Your task to perform on an android device: uninstall "Etsy: Buy & Sell Unique Items" Image 0: 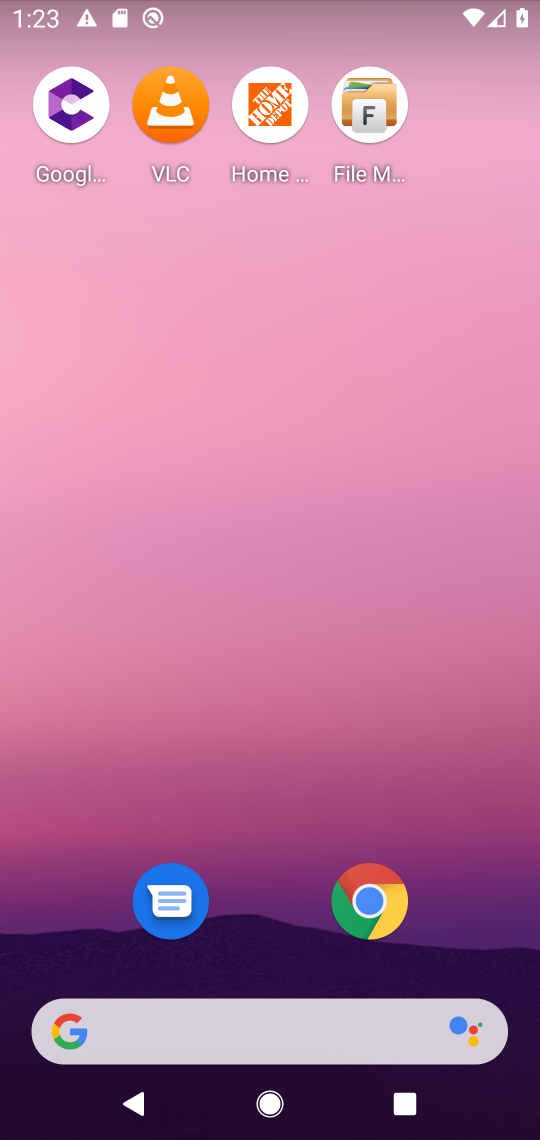
Step 0: drag from (235, 970) to (377, 81)
Your task to perform on an android device: uninstall "Etsy: Buy & Sell Unique Items" Image 1: 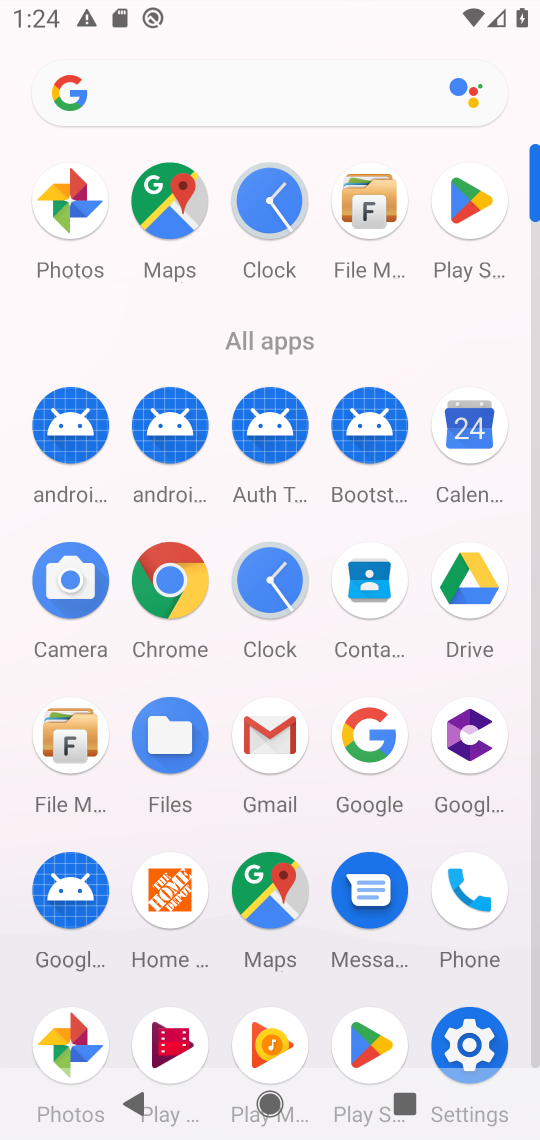
Step 1: click (465, 191)
Your task to perform on an android device: uninstall "Etsy: Buy & Sell Unique Items" Image 2: 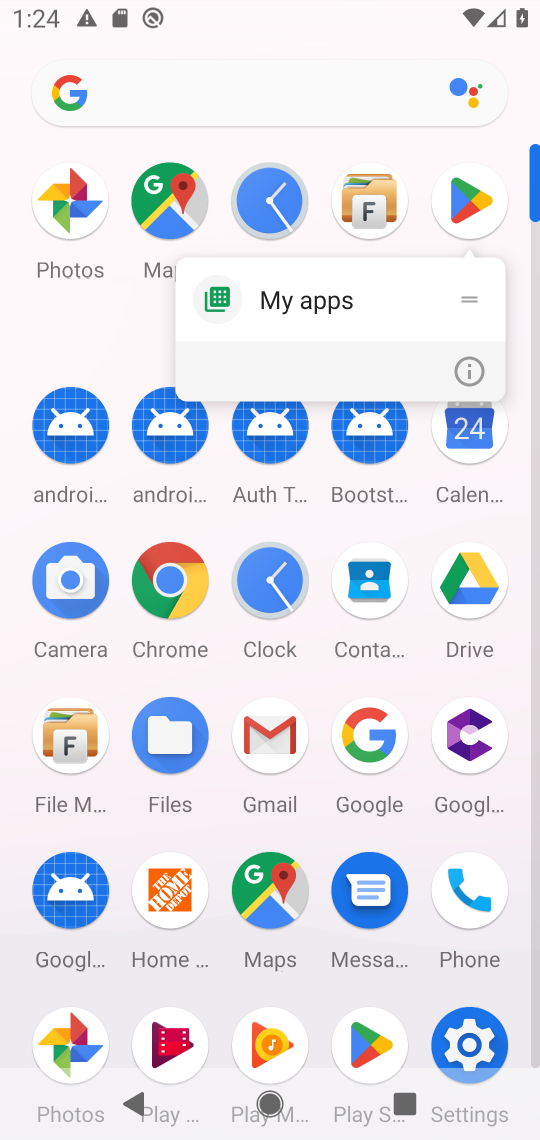
Step 2: click (449, 195)
Your task to perform on an android device: uninstall "Etsy: Buy & Sell Unique Items" Image 3: 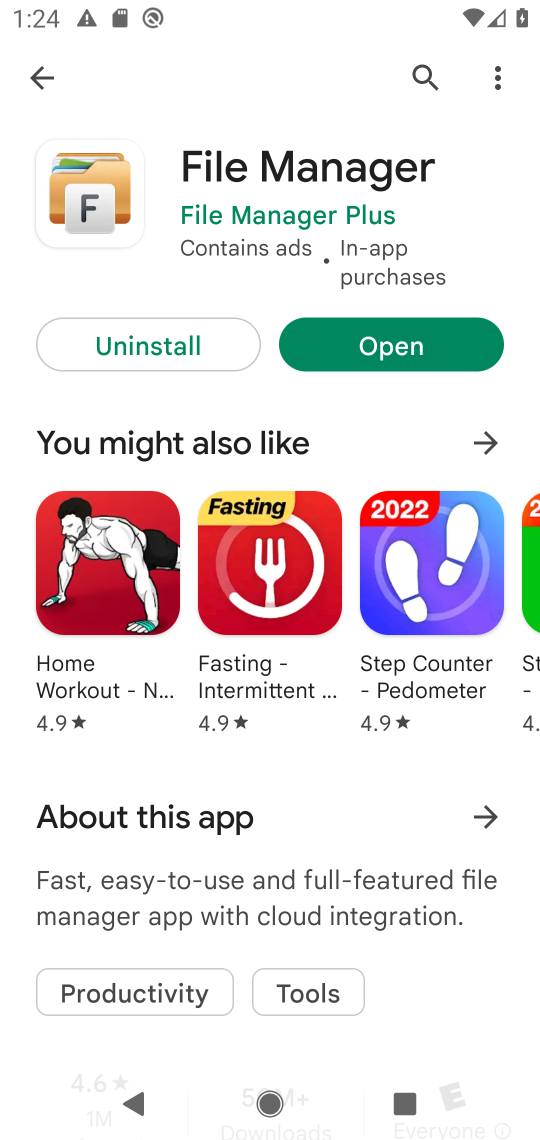
Step 3: click (427, 55)
Your task to perform on an android device: uninstall "Etsy: Buy & Sell Unique Items" Image 4: 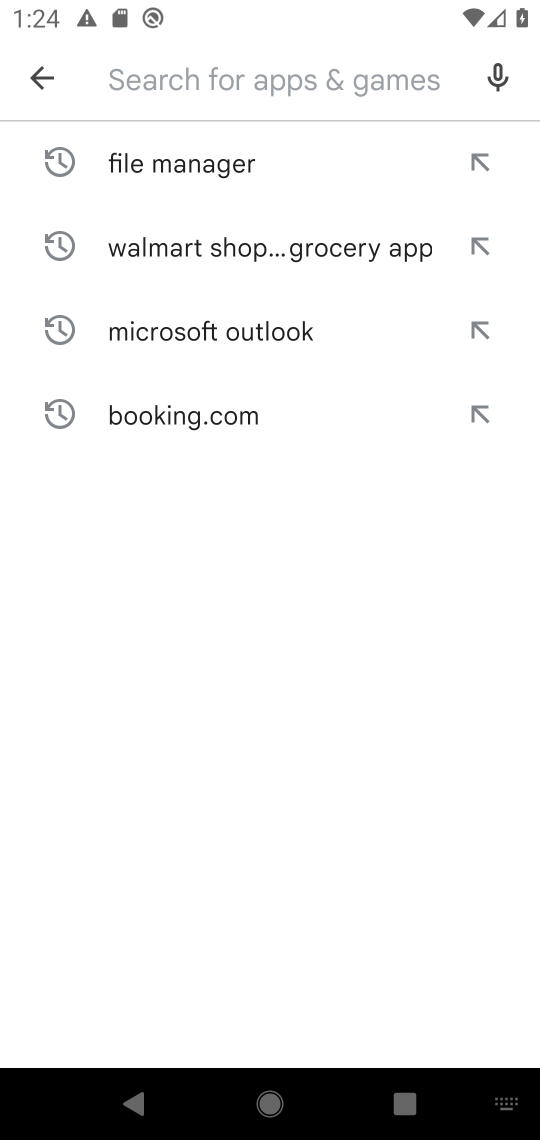
Step 4: type "etsy"
Your task to perform on an android device: uninstall "Etsy: Buy & Sell Unique Items" Image 5: 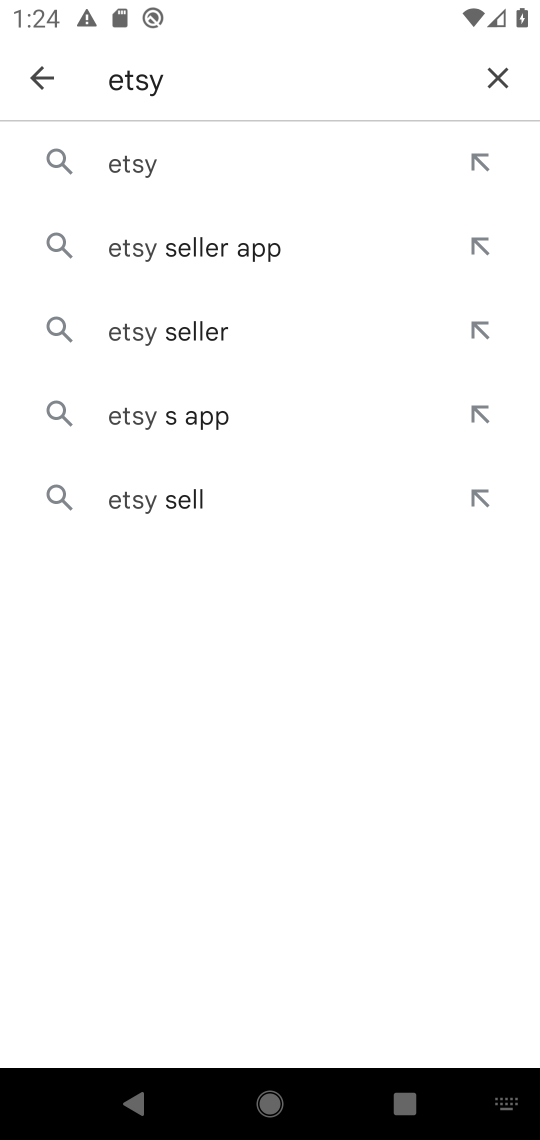
Step 5: click (72, 164)
Your task to perform on an android device: uninstall "Etsy: Buy & Sell Unique Items" Image 6: 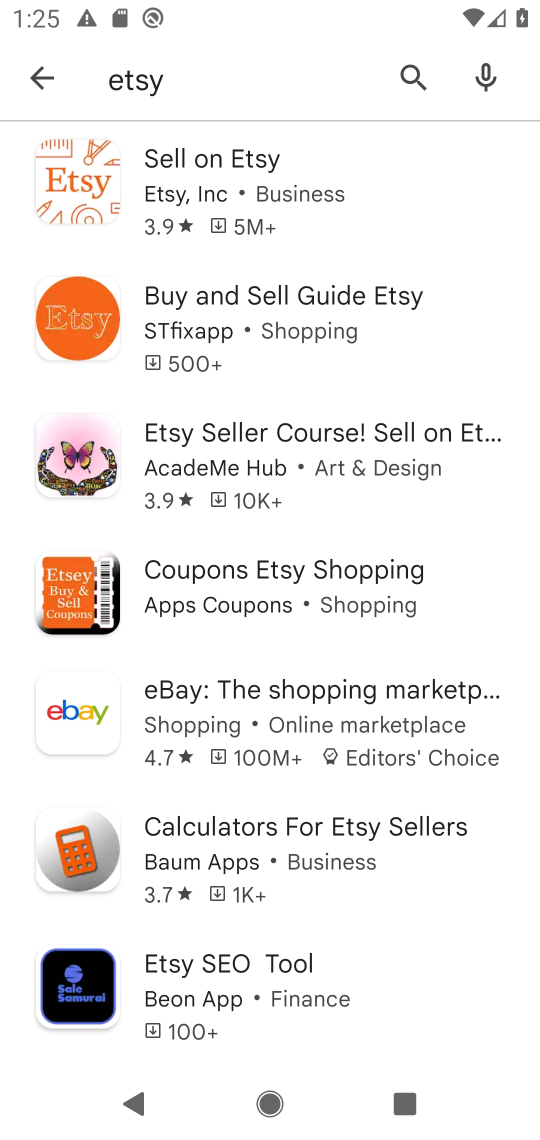
Step 6: task complete